Your task to perform on an android device: change notification settings in the gmail app Image 0: 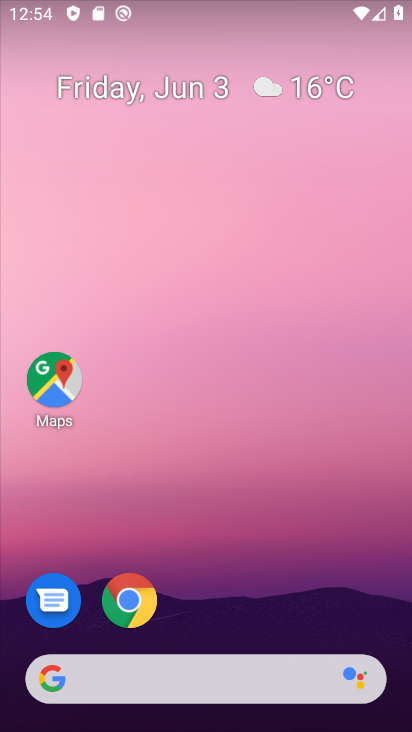
Step 0: drag from (244, 315) to (244, 21)
Your task to perform on an android device: change notification settings in the gmail app Image 1: 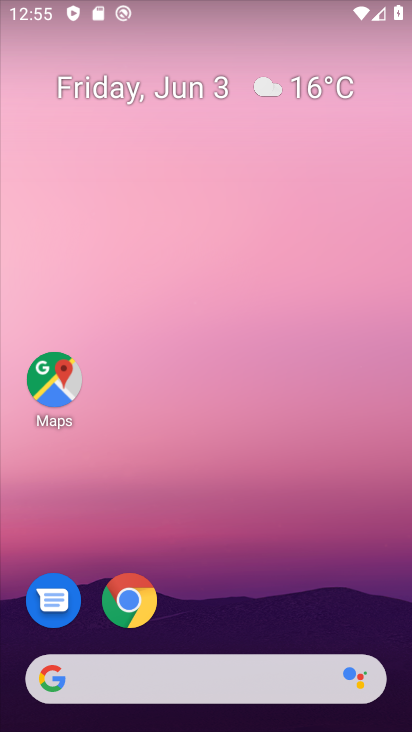
Step 1: drag from (207, 561) to (210, 18)
Your task to perform on an android device: change notification settings in the gmail app Image 2: 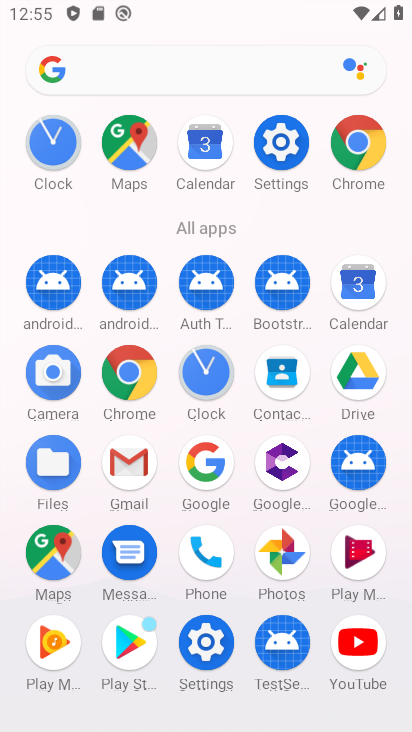
Step 2: drag from (9, 614) to (21, 173)
Your task to perform on an android device: change notification settings in the gmail app Image 3: 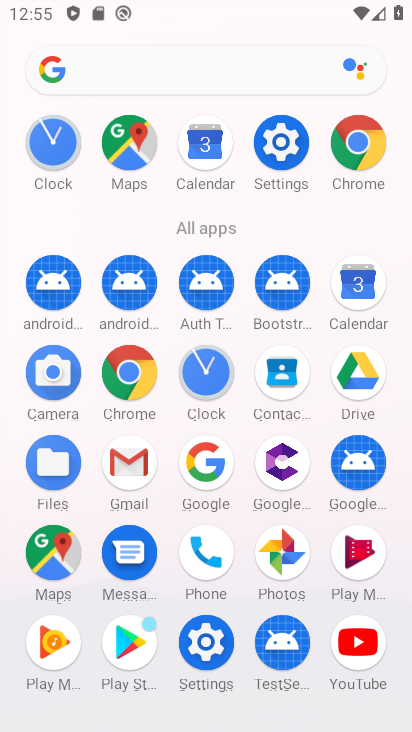
Step 3: click (128, 463)
Your task to perform on an android device: change notification settings in the gmail app Image 4: 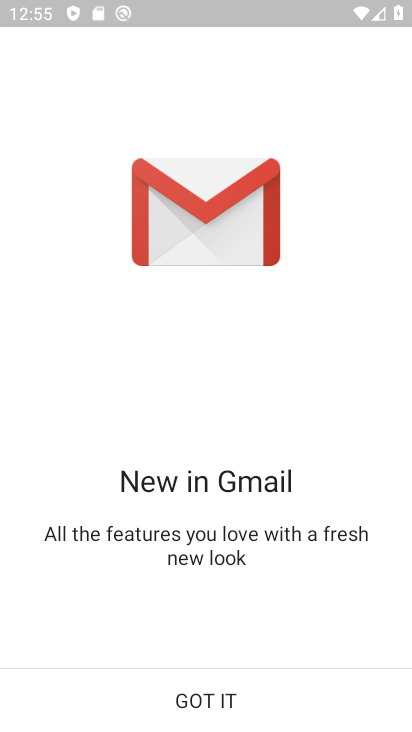
Step 4: click (233, 709)
Your task to perform on an android device: change notification settings in the gmail app Image 5: 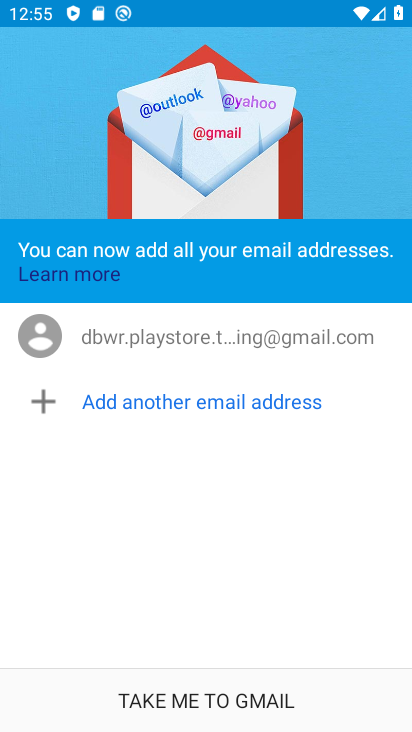
Step 5: click (227, 705)
Your task to perform on an android device: change notification settings in the gmail app Image 6: 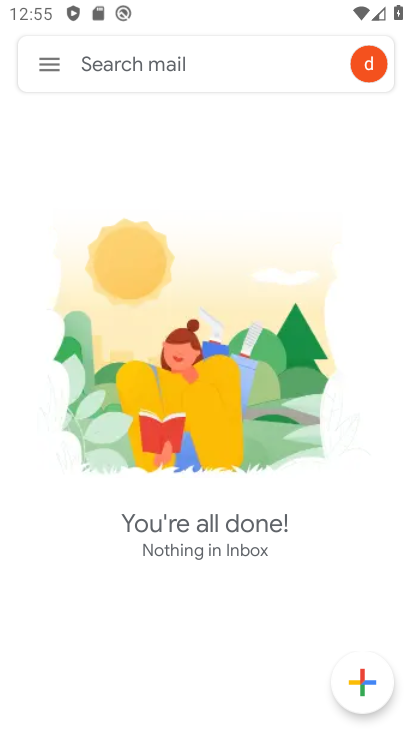
Step 6: click (56, 65)
Your task to perform on an android device: change notification settings in the gmail app Image 7: 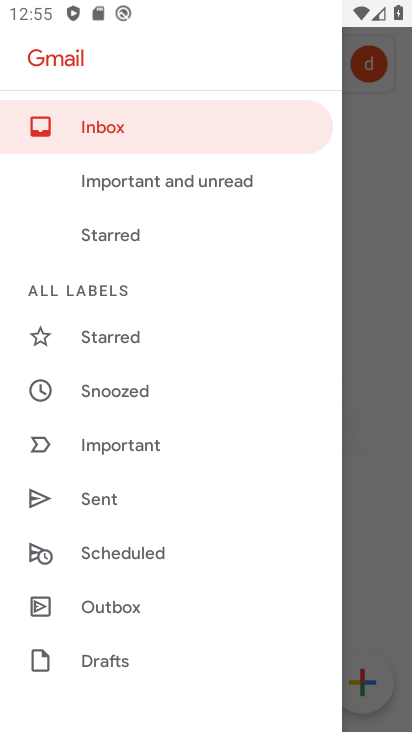
Step 7: drag from (186, 648) to (172, 124)
Your task to perform on an android device: change notification settings in the gmail app Image 8: 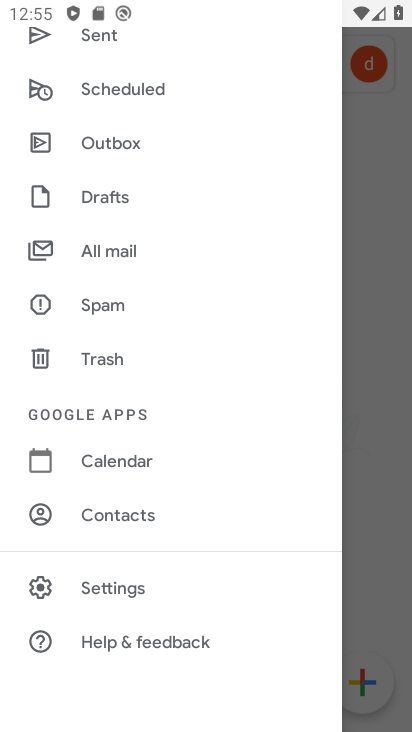
Step 8: click (150, 593)
Your task to perform on an android device: change notification settings in the gmail app Image 9: 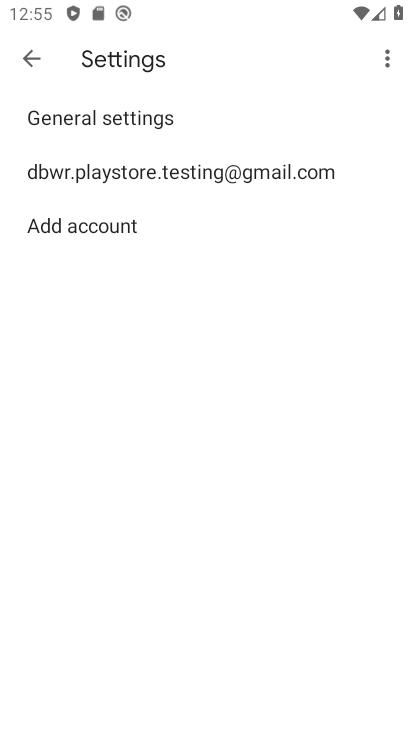
Step 9: click (170, 178)
Your task to perform on an android device: change notification settings in the gmail app Image 10: 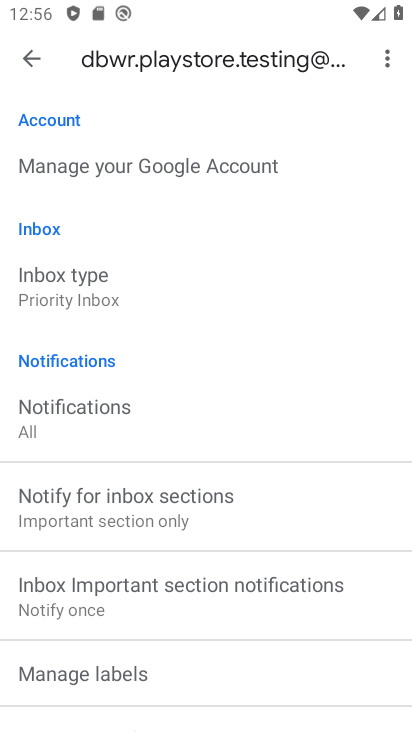
Step 10: drag from (234, 604) to (248, 101)
Your task to perform on an android device: change notification settings in the gmail app Image 11: 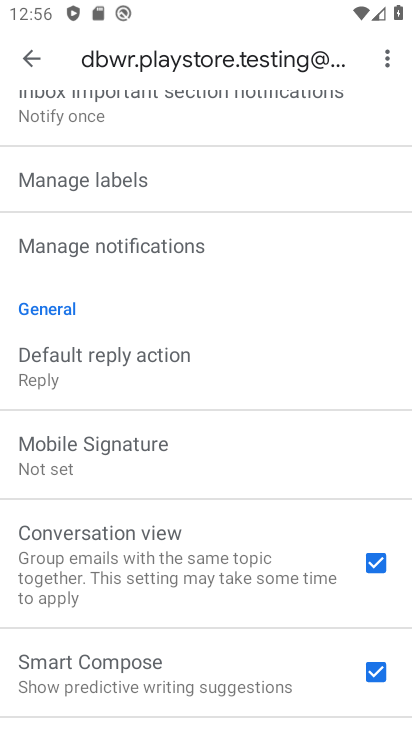
Step 11: click (169, 229)
Your task to perform on an android device: change notification settings in the gmail app Image 12: 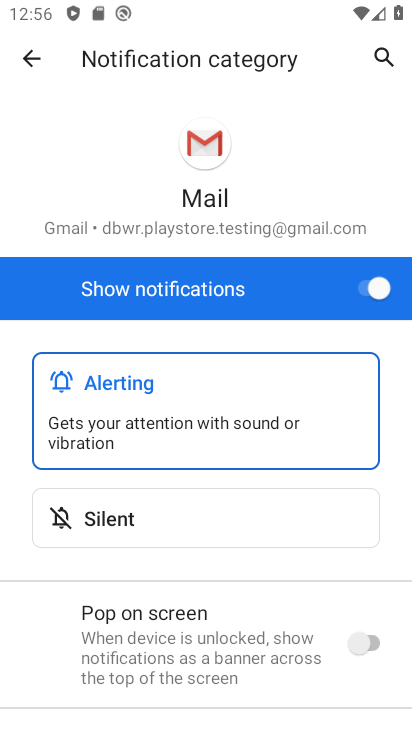
Step 12: click (362, 277)
Your task to perform on an android device: change notification settings in the gmail app Image 13: 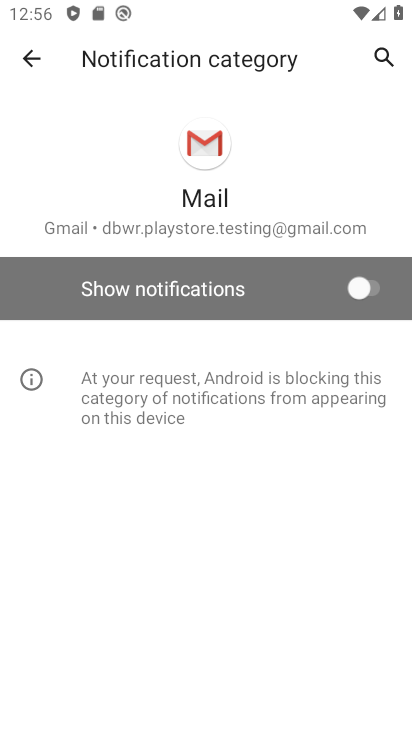
Step 13: task complete